Your task to perform on an android device: Search for Italian restaurants on Maps Image 0: 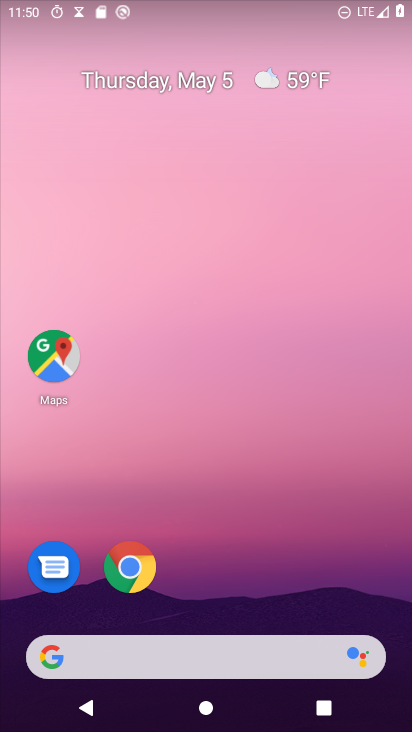
Step 0: click (50, 361)
Your task to perform on an android device: Search for Italian restaurants on Maps Image 1: 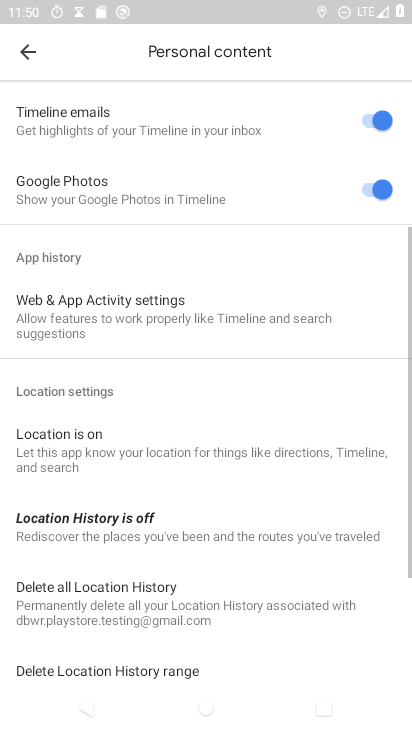
Step 1: click (28, 57)
Your task to perform on an android device: Search for Italian restaurants on Maps Image 2: 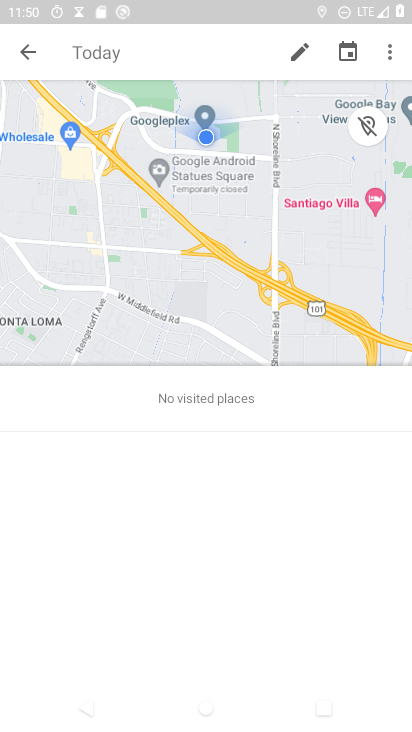
Step 2: click (31, 49)
Your task to perform on an android device: Search for Italian restaurants on Maps Image 3: 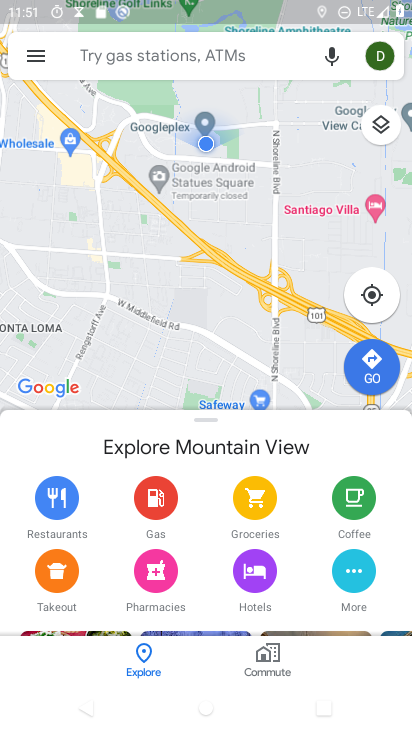
Step 3: click (97, 54)
Your task to perform on an android device: Search for Italian restaurants on Maps Image 4: 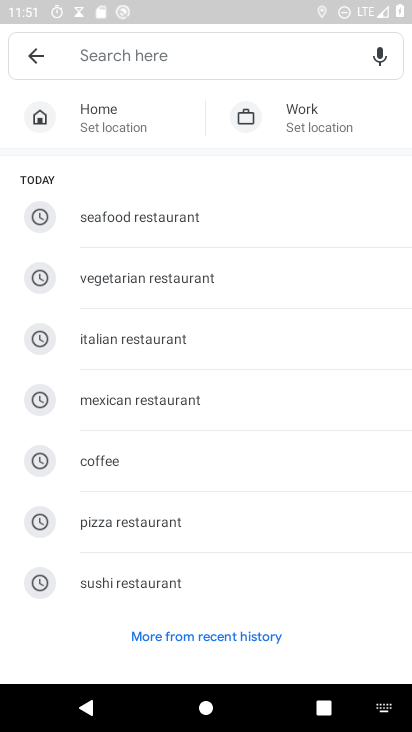
Step 4: type "italian restaurant"
Your task to perform on an android device: Search for Italian restaurants on Maps Image 5: 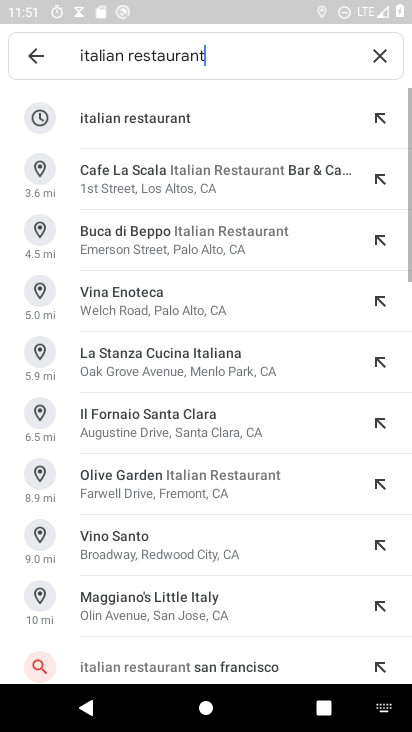
Step 5: click (127, 115)
Your task to perform on an android device: Search for Italian restaurants on Maps Image 6: 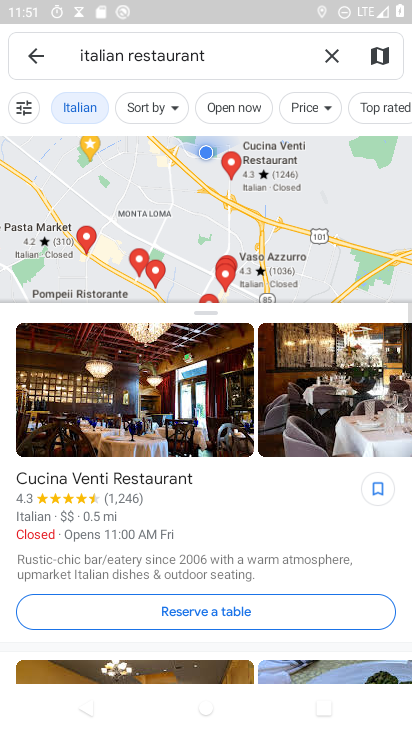
Step 6: task complete